Your task to perform on an android device: toggle airplane mode Image 0: 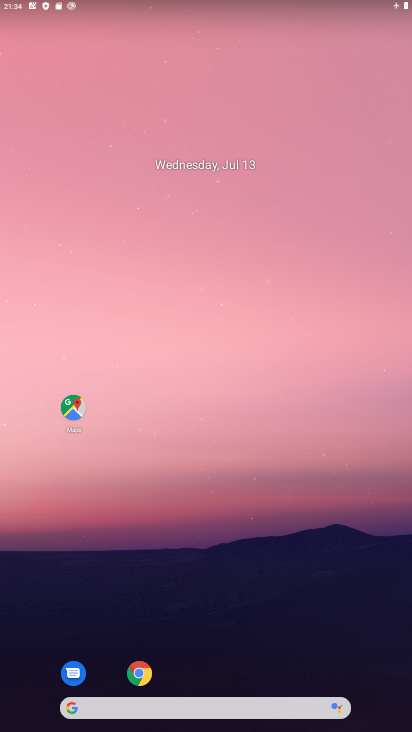
Step 0: drag from (241, 454) to (277, 253)
Your task to perform on an android device: toggle airplane mode Image 1: 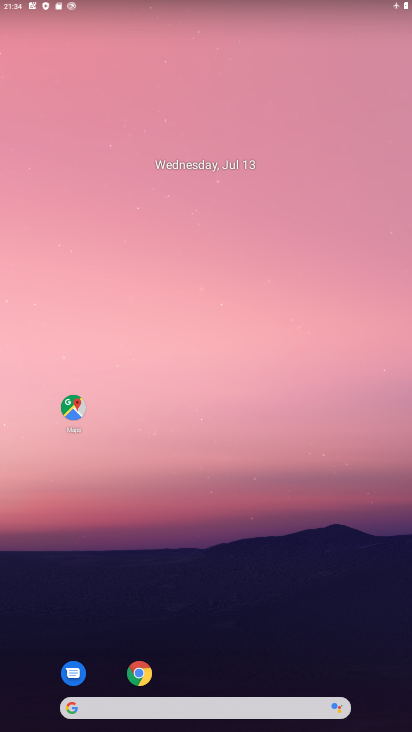
Step 1: drag from (245, 205) to (273, 7)
Your task to perform on an android device: toggle airplane mode Image 2: 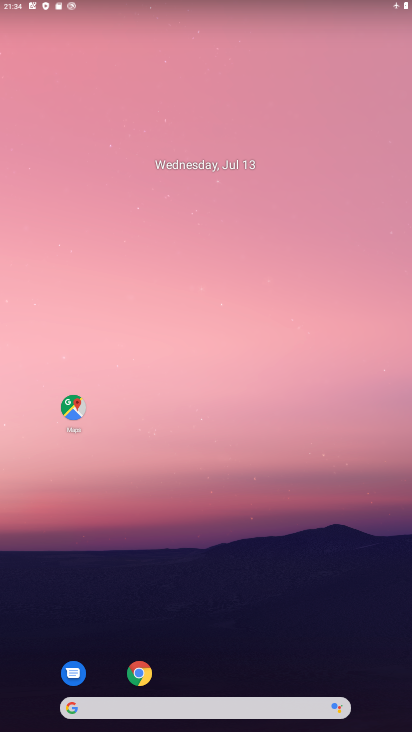
Step 2: drag from (169, 679) to (213, 26)
Your task to perform on an android device: toggle airplane mode Image 3: 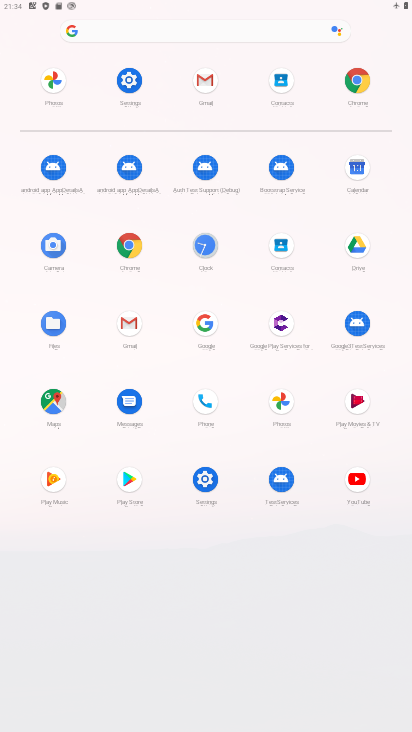
Step 3: click (124, 83)
Your task to perform on an android device: toggle airplane mode Image 4: 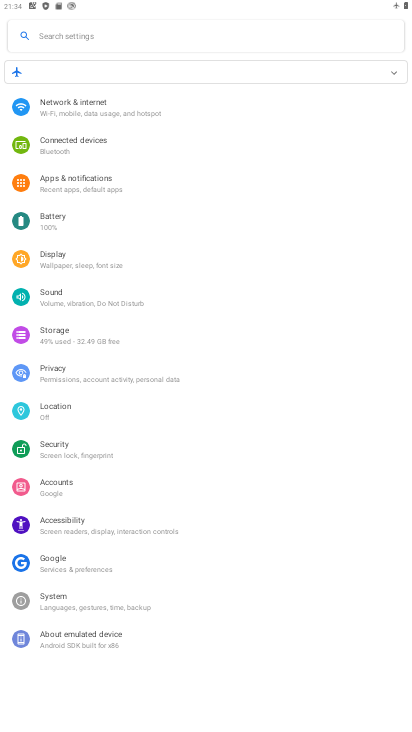
Step 4: click (97, 105)
Your task to perform on an android device: toggle airplane mode Image 5: 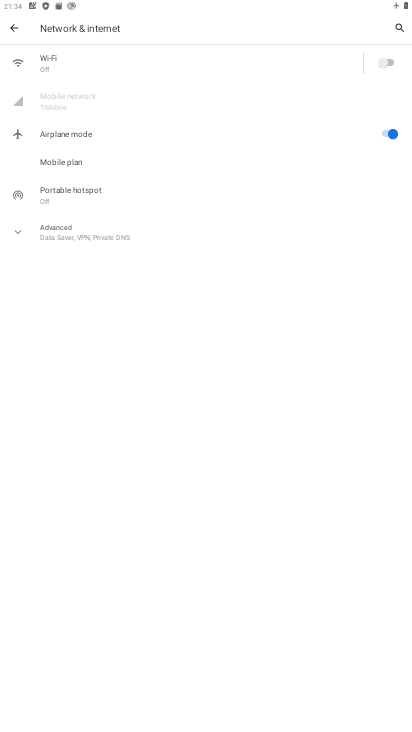
Step 5: click (388, 132)
Your task to perform on an android device: toggle airplane mode Image 6: 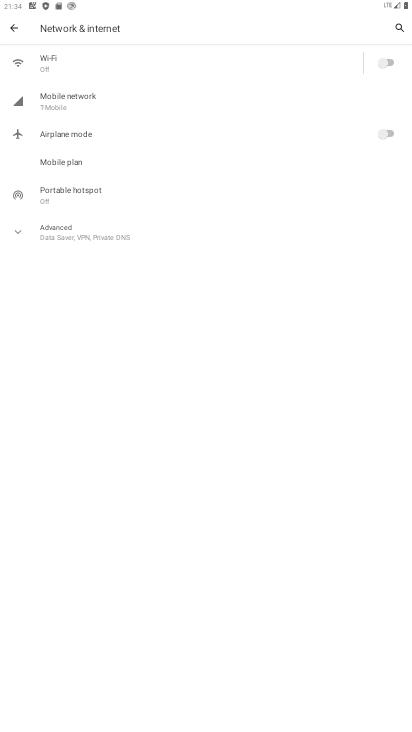
Step 6: task complete